Your task to perform on an android device: turn pop-ups off in chrome Image 0: 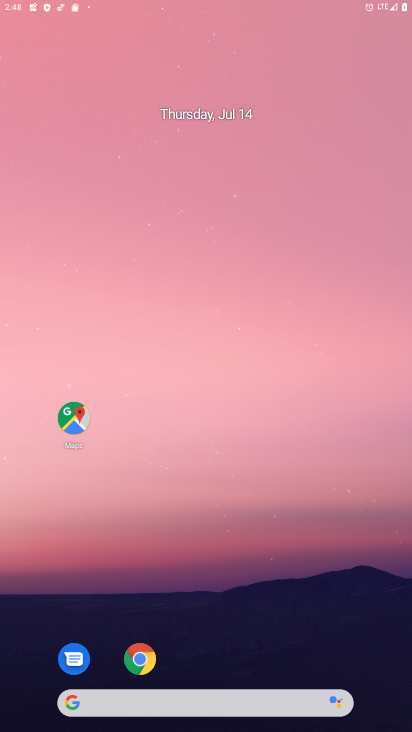
Step 0: press home button
Your task to perform on an android device: turn pop-ups off in chrome Image 1: 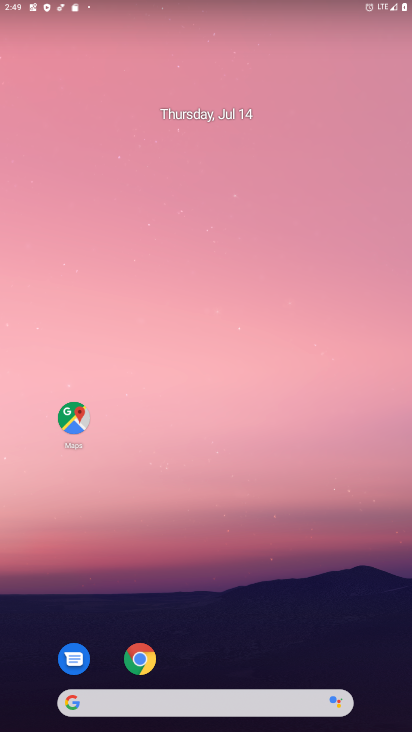
Step 1: drag from (352, 649) to (257, 24)
Your task to perform on an android device: turn pop-ups off in chrome Image 2: 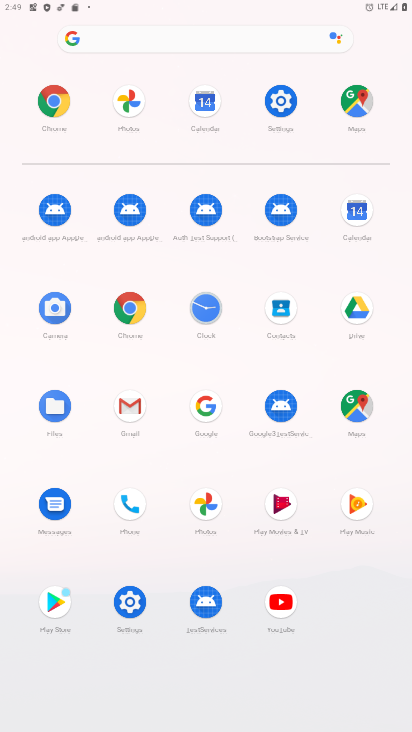
Step 2: click (49, 108)
Your task to perform on an android device: turn pop-ups off in chrome Image 3: 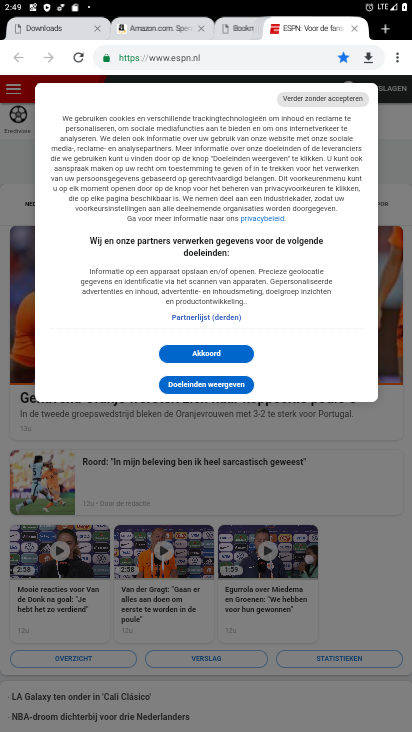
Step 3: drag from (391, 61) to (259, 455)
Your task to perform on an android device: turn pop-ups off in chrome Image 4: 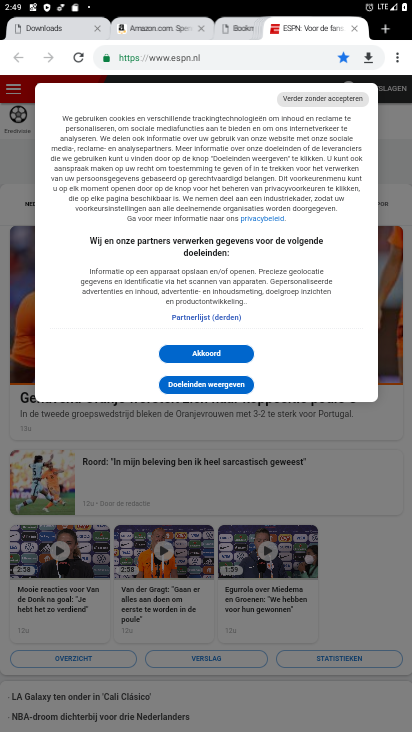
Step 4: drag from (396, 58) to (275, 379)
Your task to perform on an android device: turn pop-ups off in chrome Image 5: 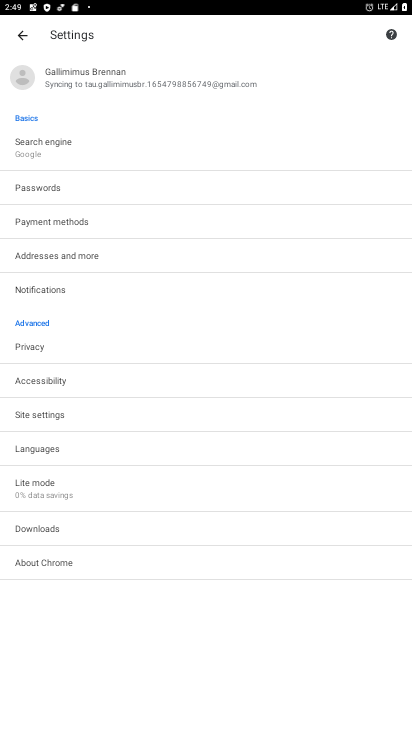
Step 5: click (35, 422)
Your task to perform on an android device: turn pop-ups off in chrome Image 6: 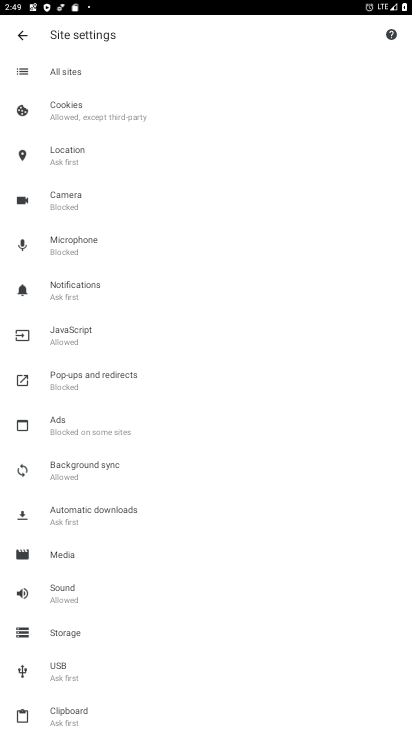
Step 6: click (71, 387)
Your task to perform on an android device: turn pop-ups off in chrome Image 7: 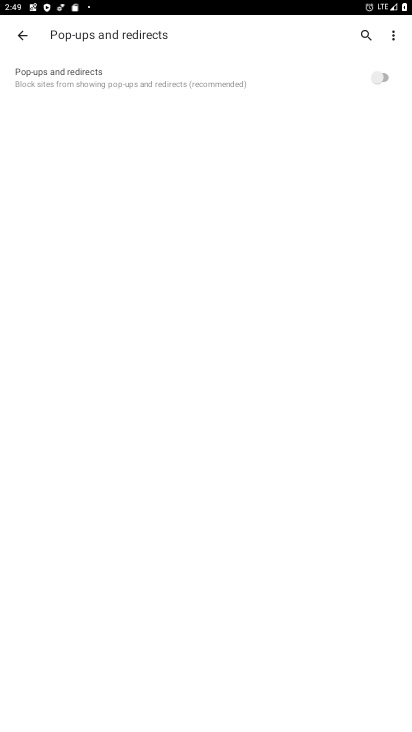
Step 7: task complete